Your task to perform on an android device: delete browsing data in the chrome app Image 0: 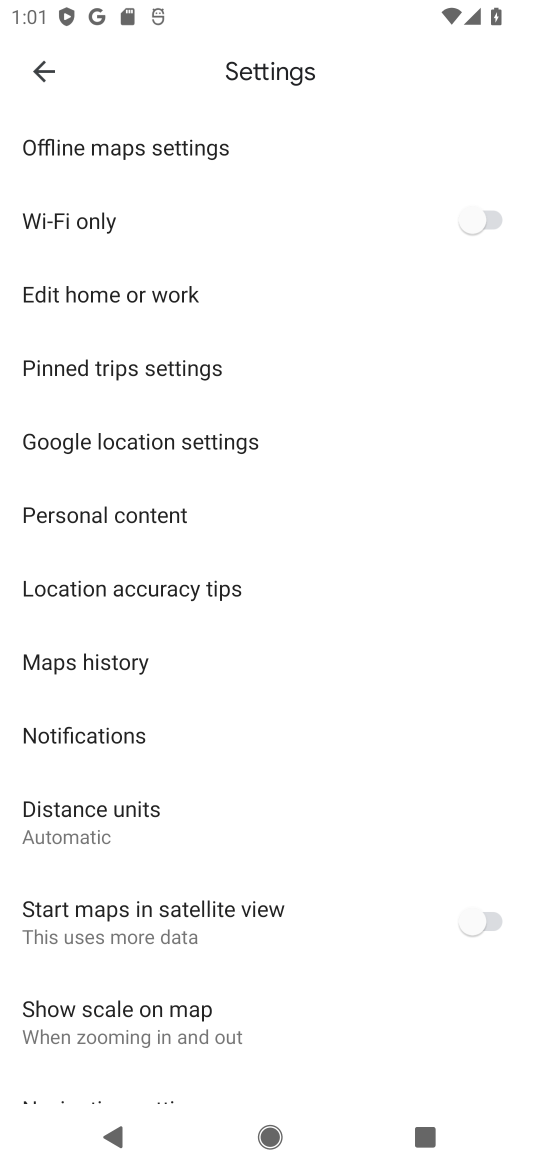
Step 0: press home button
Your task to perform on an android device: delete browsing data in the chrome app Image 1: 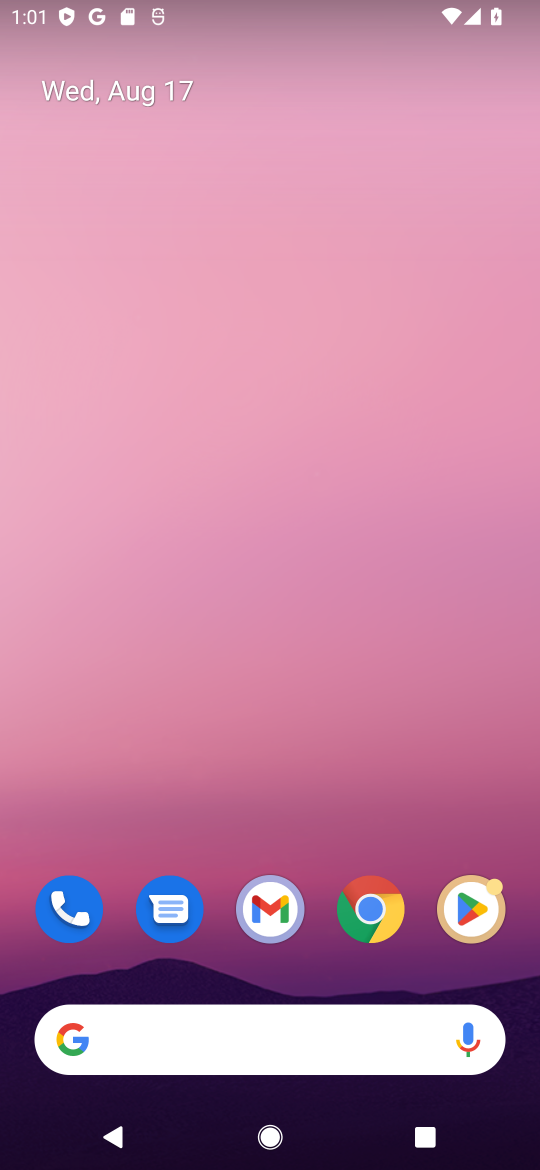
Step 1: click (369, 908)
Your task to perform on an android device: delete browsing data in the chrome app Image 2: 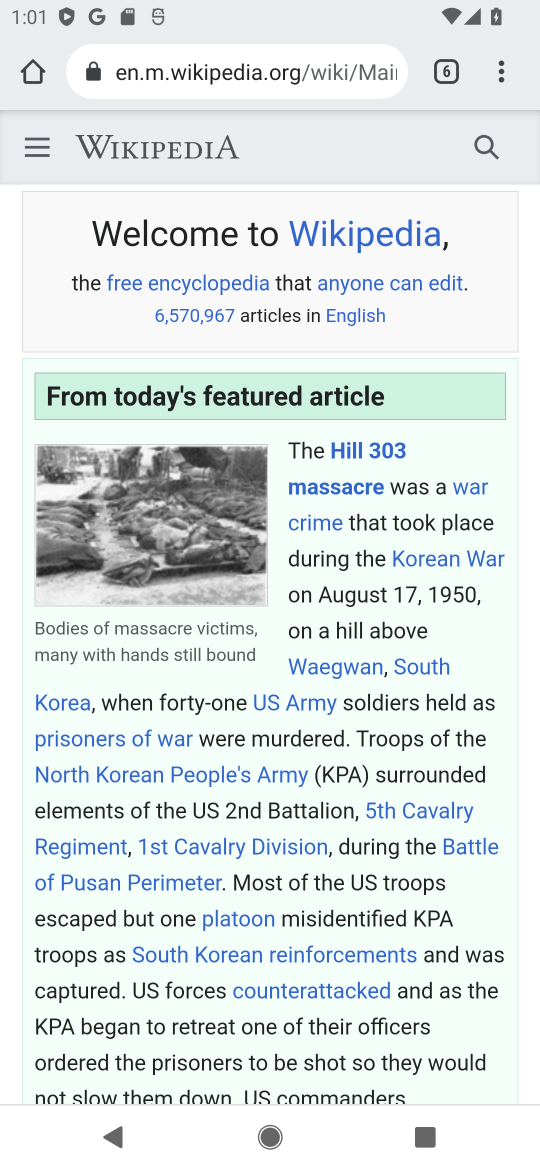
Step 2: click (495, 59)
Your task to perform on an android device: delete browsing data in the chrome app Image 3: 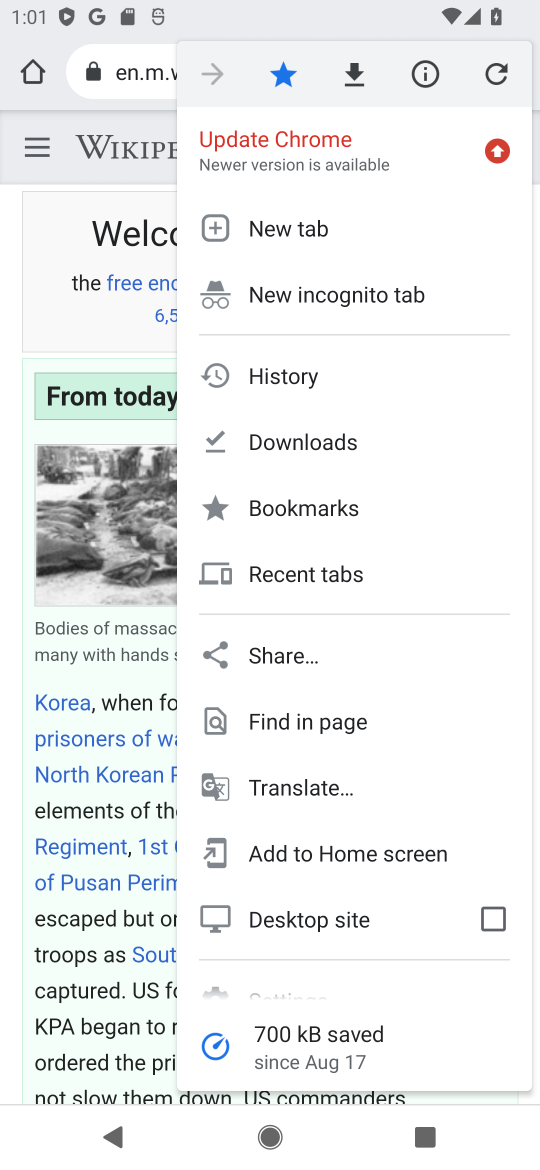
Step 3: click (287, 370)
Your task to perform on an android device: delete browsing data in the chrome app Image 4: 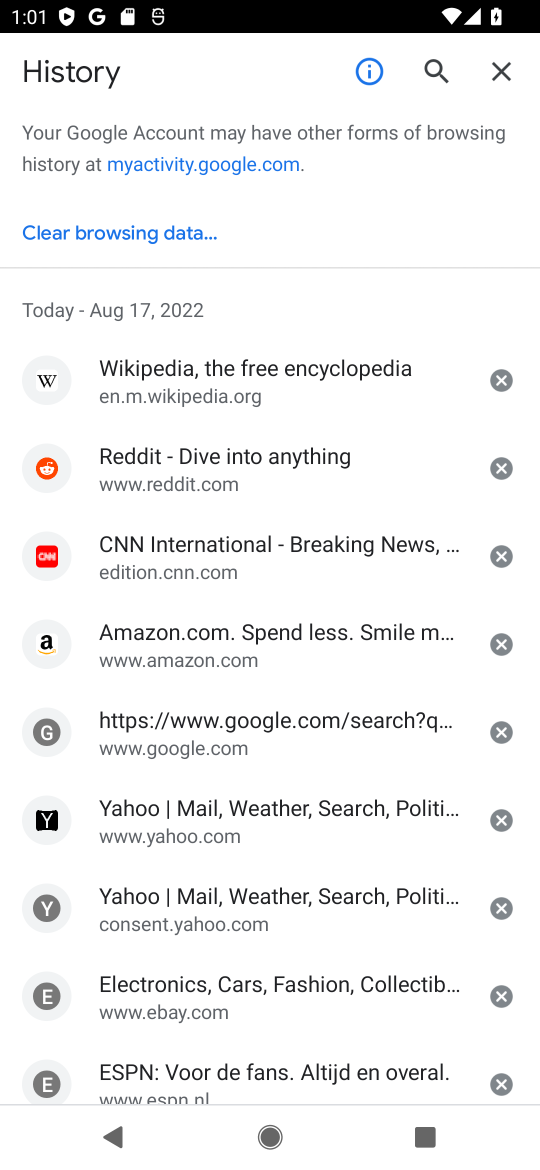
Step 4: click (114, 230)
Your task to perform on an android device: delete browsing data in the chrome app Image 5: 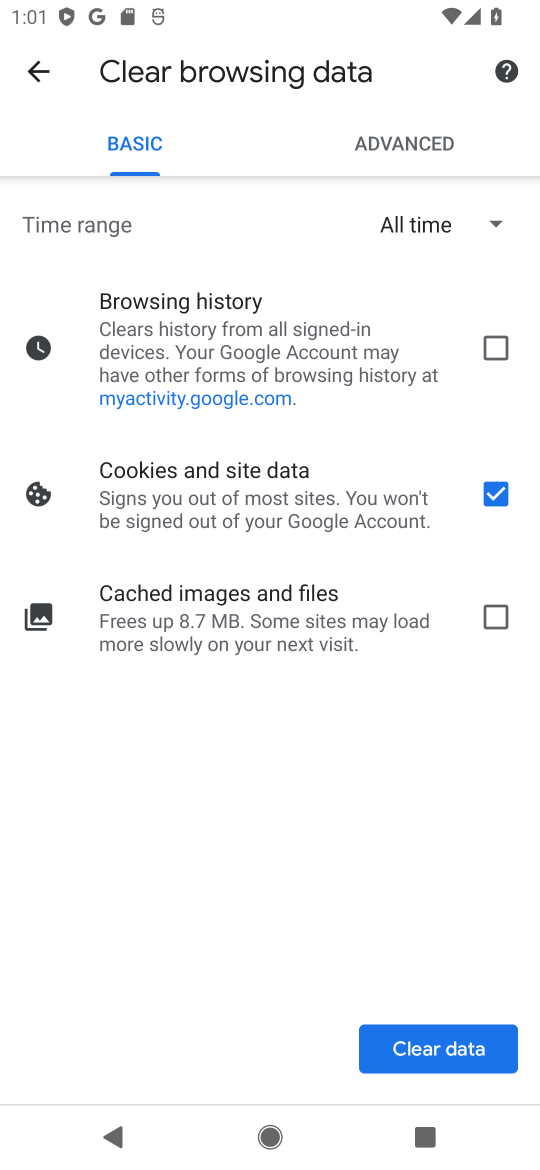
Step 5: click (495, 345)
Your task to perform on an android device: delete browsing data in the chrome app Image 6: 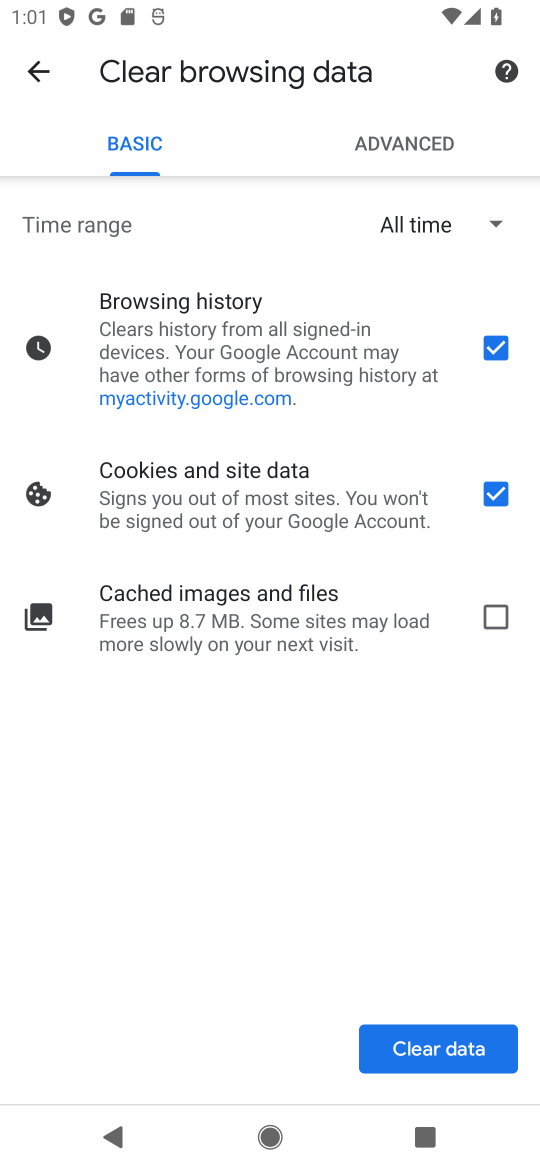
Step 6: click (488, 482)
Your task to perform on an android device: delete browsing data in the chrome app Image 7: 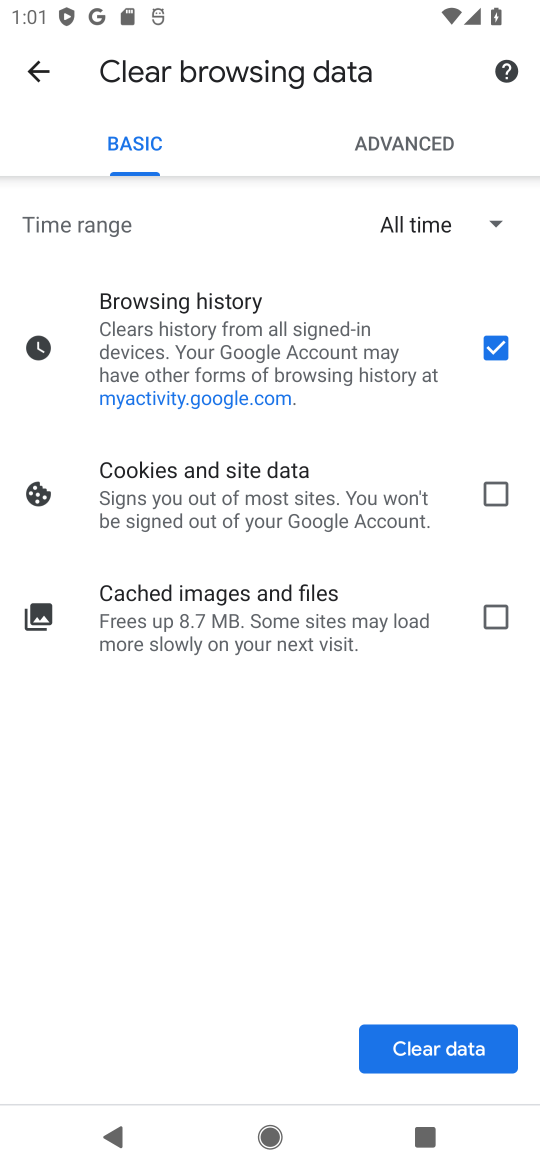
Step 7: click (431, 1031)
Your task to perform on an android device: delete browsing data in the chrome app Image 8: 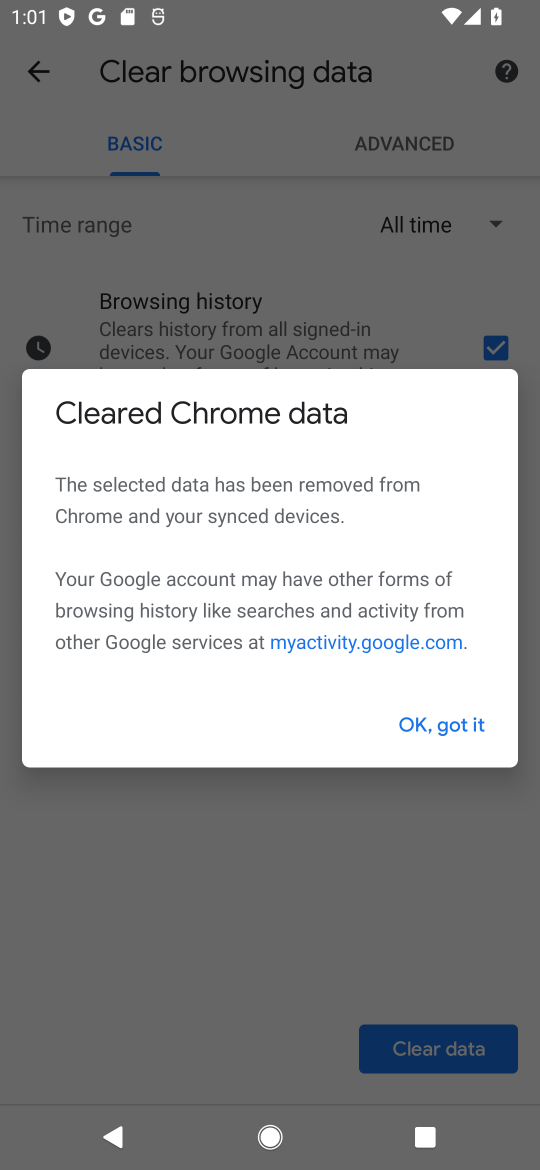
Step 8: click (454, 717)
Your task to perform on an android device: delete browsing data in the chrome app Image 9: 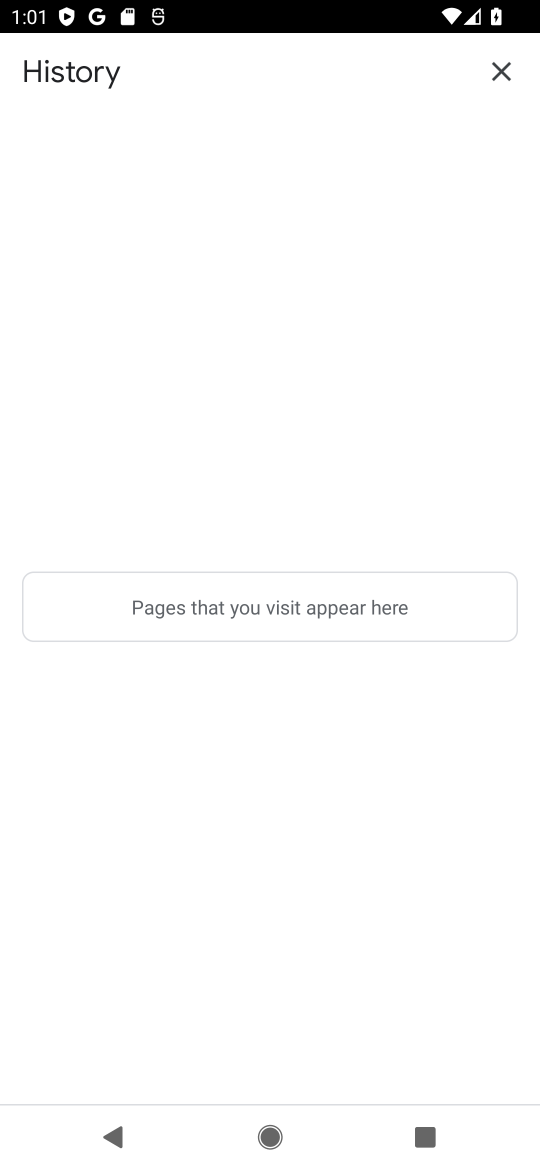
Step 9: task complete